Your task to perform on an android device: Open Google Maps Image 0: 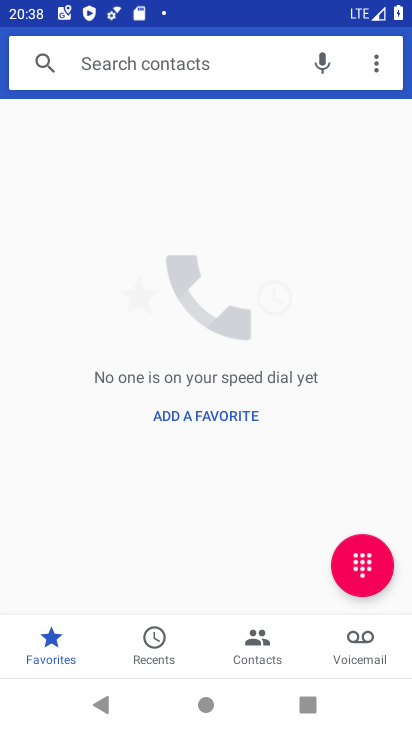
Step 0: press back button
Your task to perform on an android device: Open Google Maps Image 1: 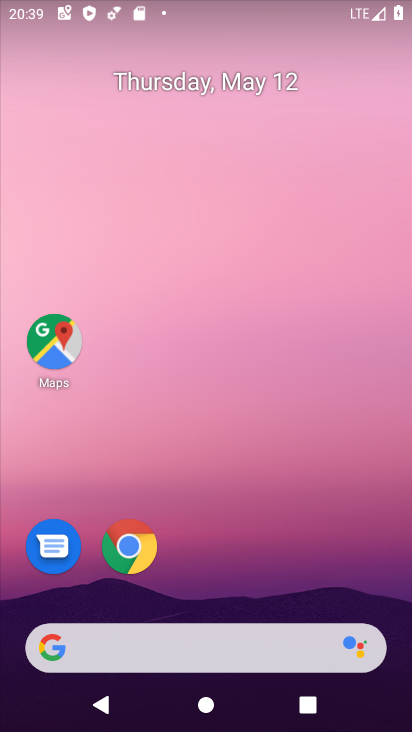
Step 1: click (50, 341)
Your task to perform on an android device: Open Google Maps Image 2: 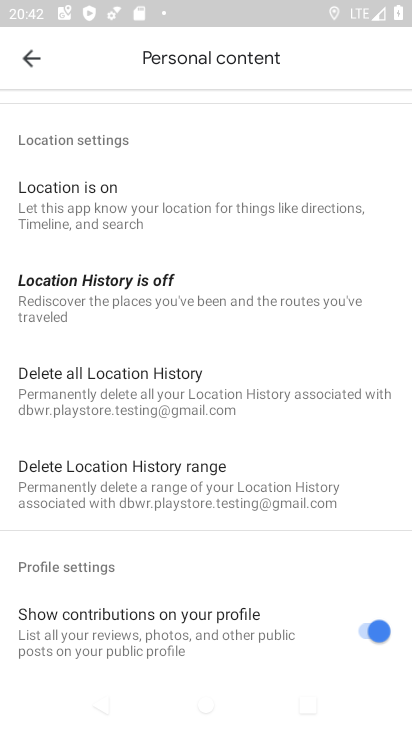
Step 2: click (52, 48)
Your task to perform on an android device: Open Google Maps Image 3: 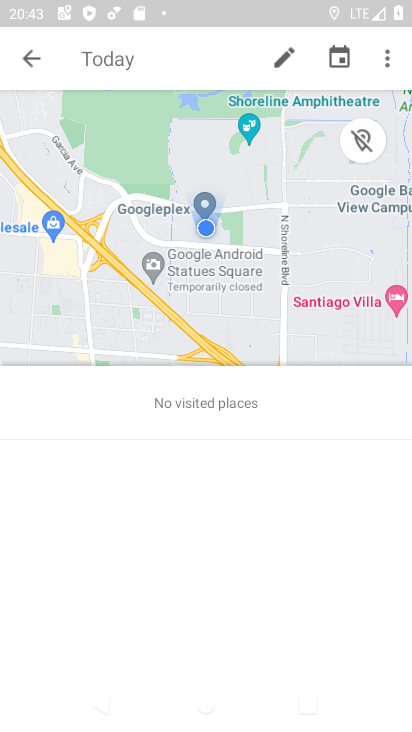
Step 3: task complete